Your task to perform on an android device: set an alarm Image 0: 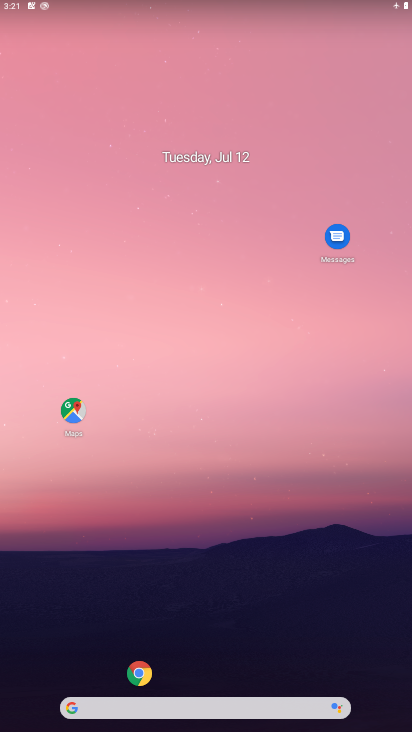
Step 0: drag from (242, 89) to (24, 317)
Your task to perform on an android device: set an alarm Image 1: 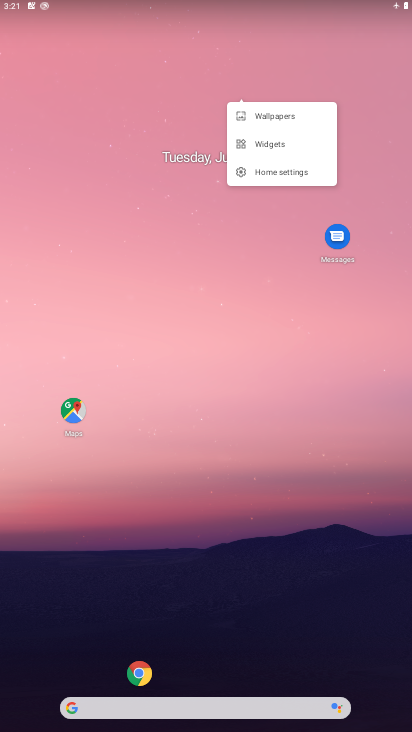
Step 1: drag from (305, 57) to (331, 4)
Your task to perform on an android device: set an alarm Image 2: 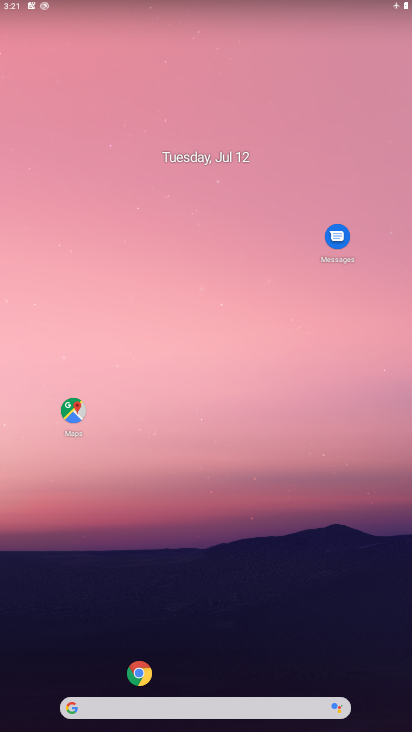
Step 2: drag from (18, 694) to (274, 17)
Your task to perform on an android device: set an alarm Image 3: 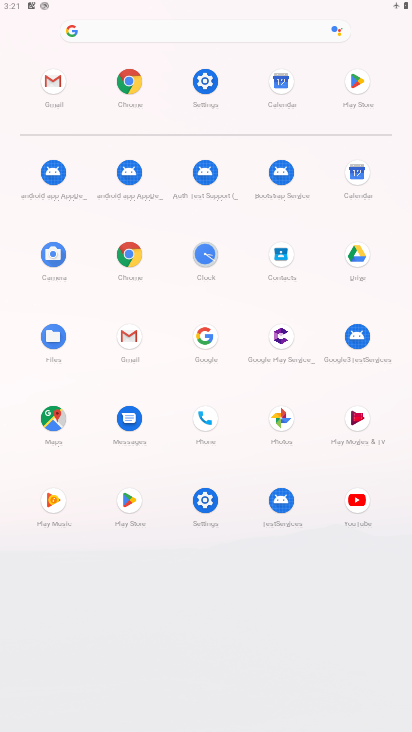
Step 3: click (204, 247)
Your task to perform on an android device: set an alarm Image 4: 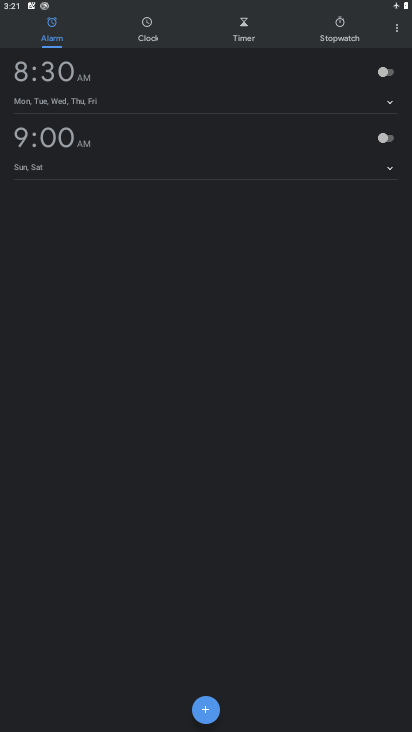
Step 4: click (386, 73)
Your task to perform on an android device: set an alarm Image 5: 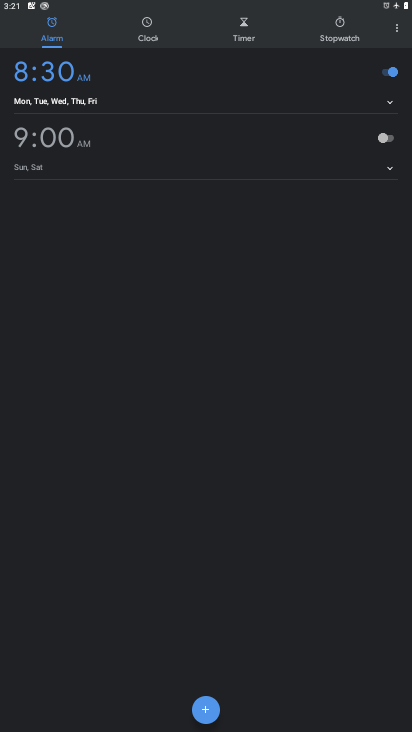
Step 5: task complete